Your task to perform on an android device: check android version Image 0: 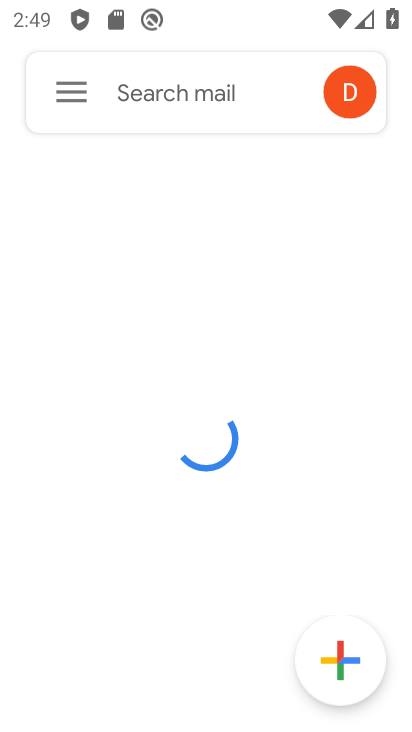
Step 0: press home button
Your task to perform on an android device: check android version Image 1: 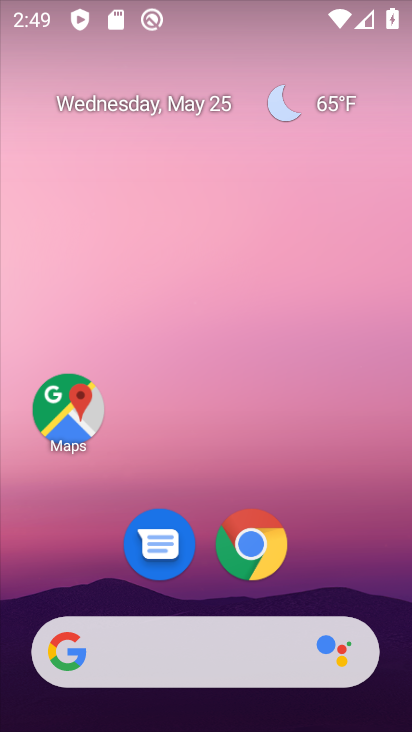
Step 1: drag from (373, 559) to (295, 61)
Your task to perform on an android device: check android version Image 2: 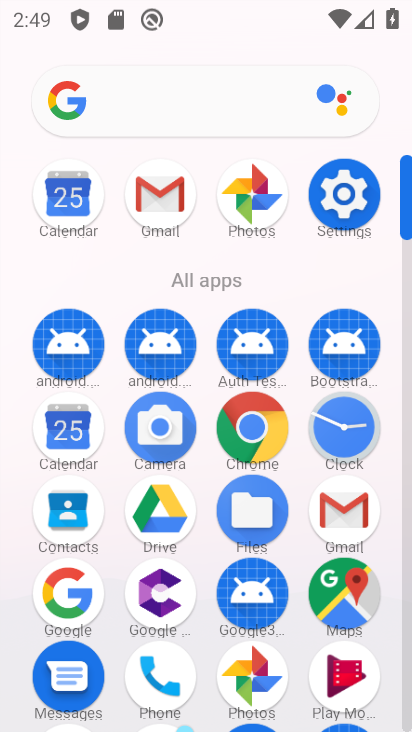
Step 2: click (348, 207)
Your task to perform on an android device: check android version Image 3: 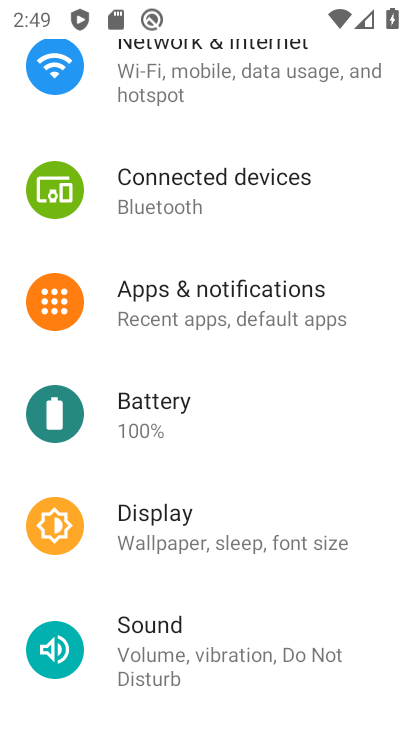
Step 3: task complete